Your task to perform on an android device: Go to notification settings Image 0: 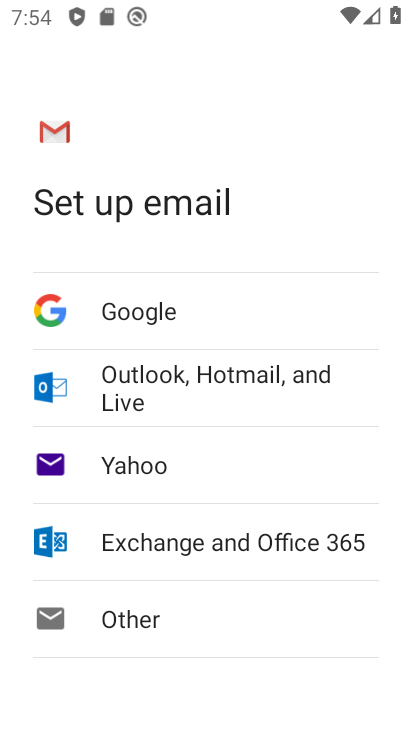
Step 0: drag from (228, 4) to (214, 563)
Your task to perform on an android device: Go to notification settings Image 1: 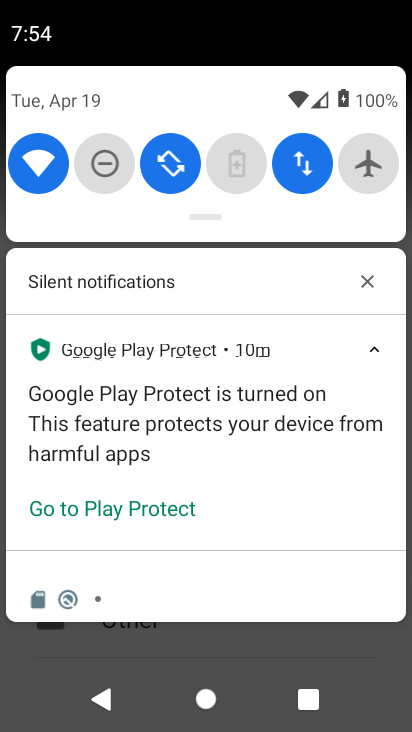
Step 1: drag from (257, 97) to (260, 552)
Your task to perform on an android device: Go to notification settings Image 2: 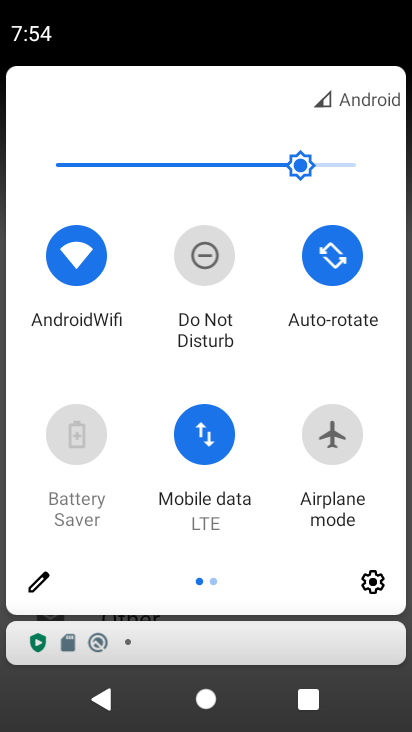
Step 2: click (371, 582)
Your task to perform on an android device: Go to notification settings Image 3: 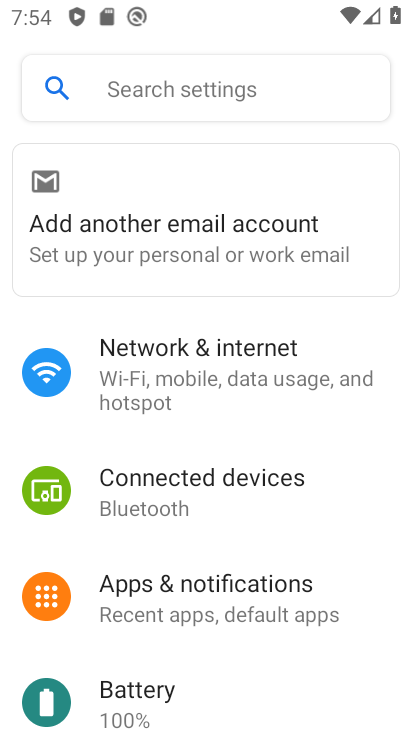
Step 3: click (334, 587)
Your task to perform on an android device: Go to notification settings Image 4: 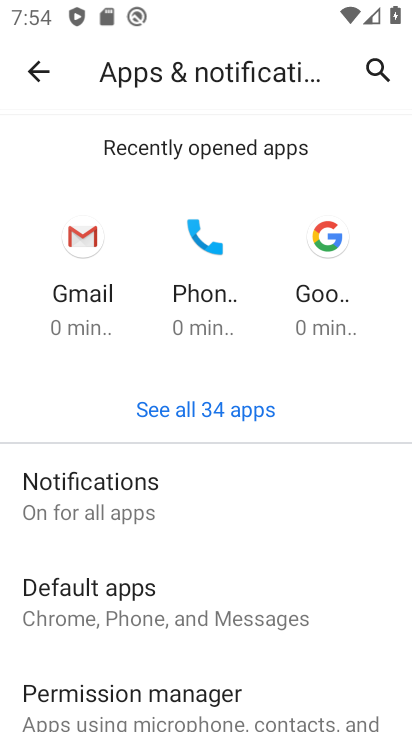
Step 4: task complete